Your task to perform on an android device: Go to ESPN.com Image 0: 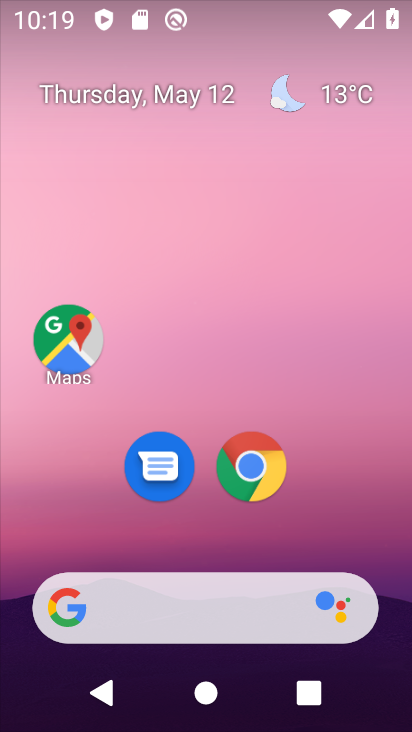
Step 0: click (251, 464)
Your task to perform on an android device: Go to ESPN.com Image 1: 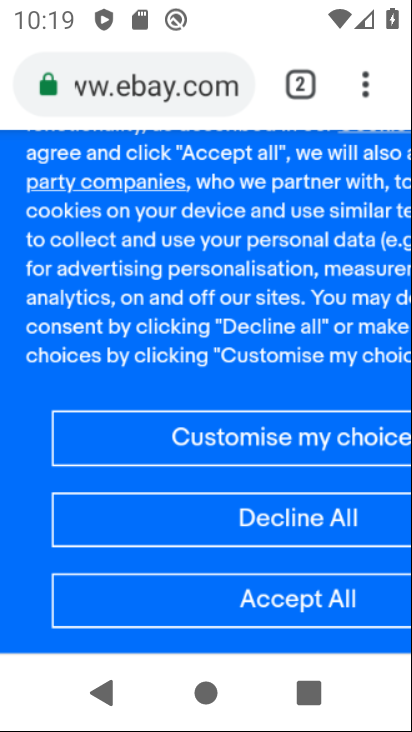
Step 1: click (293, 84)
Your task to perform on an android device: Go to ESPN.com Image 2: 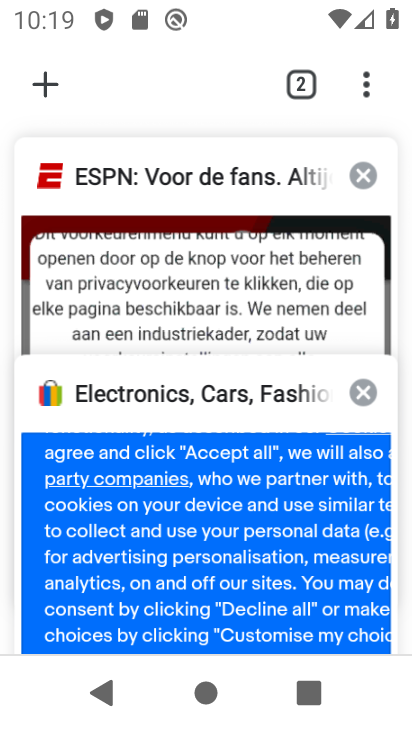
Step 2: click (92, 198)
Your task to perform on an android device: Go to ESPN.com Image 3: 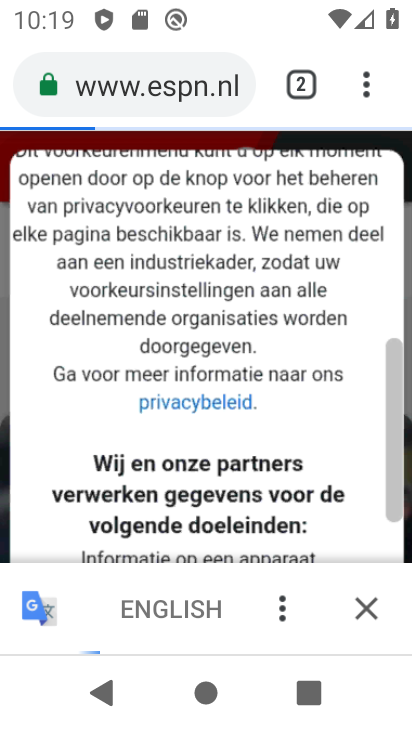
Step 3: task complete